Your task to perform on an android device: change notifications settings Image 0: 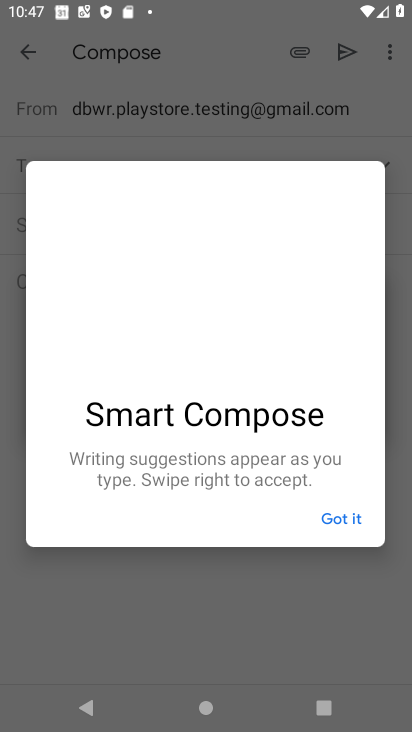
Step 0: press home button
Your task to perform on an android device: change notifications settings Image 1: 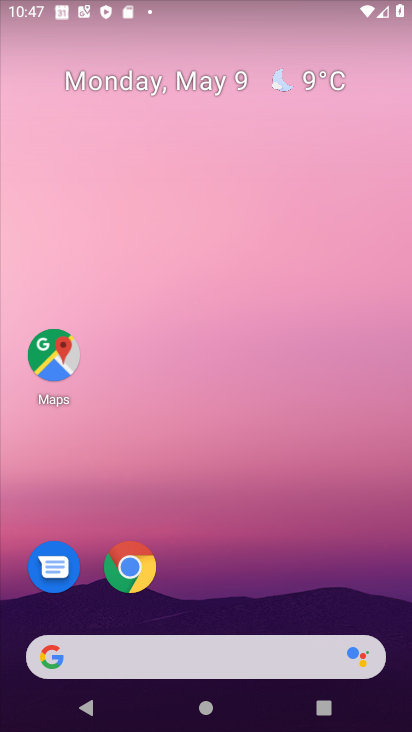
Step 1: drag from (202, 616) to (224, 79)
Your task to perform on an android device: change notifications settings Image 2: 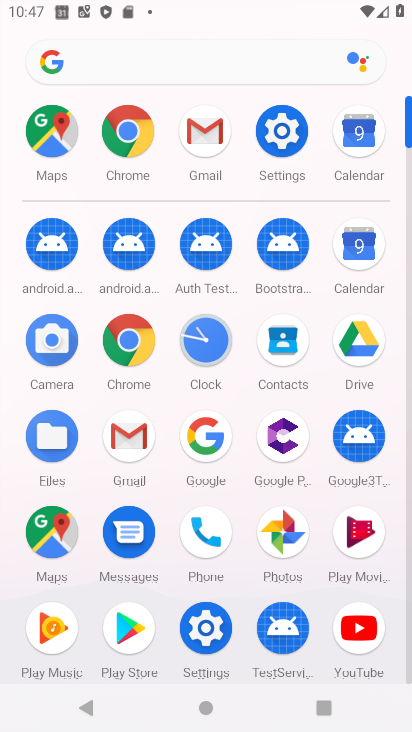
Step 2: click (282, 125)
Your task to perform on an android device: change notifications settings Image 3: 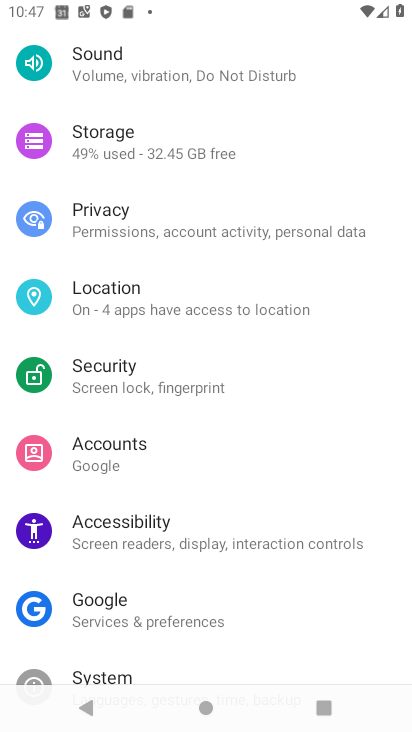
Step 3: drag from (151, 67) to (145, 611)
Your task to perform on an android device: change notifications settings Image 4: 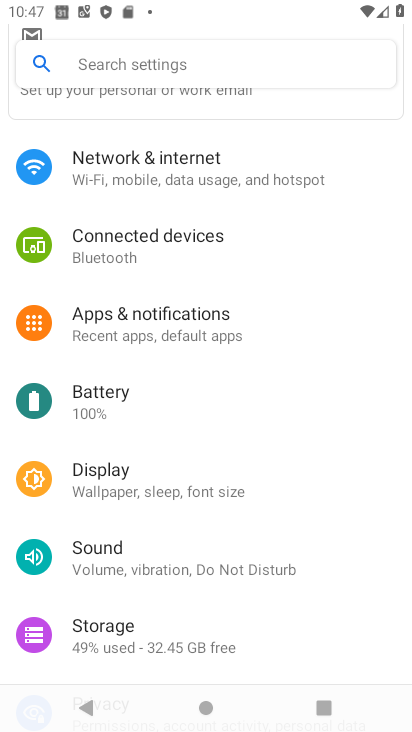
Step 4: click (177, 316)
Your task to perform on an android device: change notifications settings Image 5: 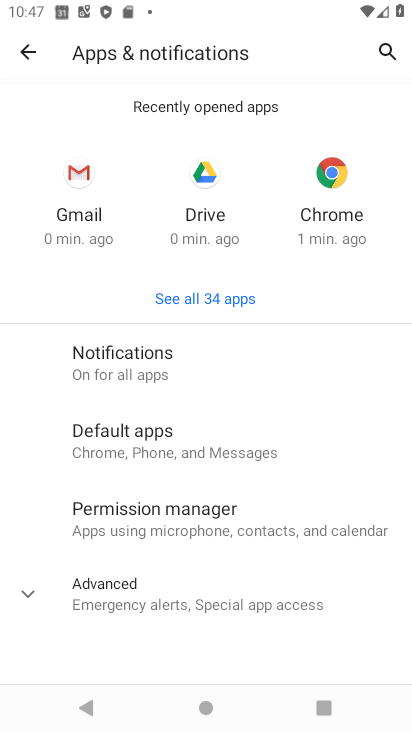
Step 5: click (179, 363)
Your task to perform on an android device: change notifications settings Image 6: 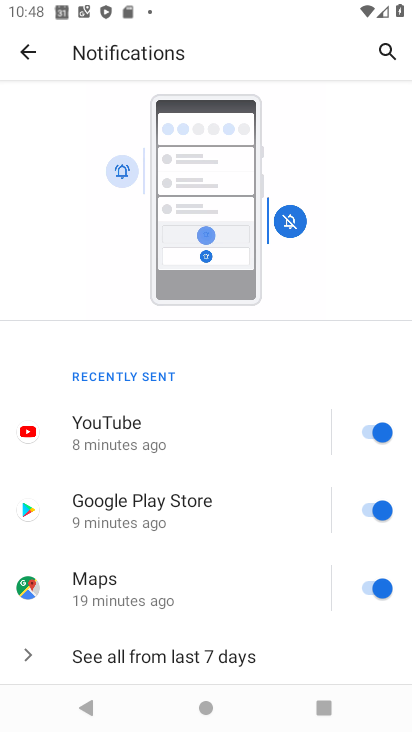
Step 6: drag from (263, 635) to (286, 308)
Your task to perform on an android device: change notifications settings Image 7: 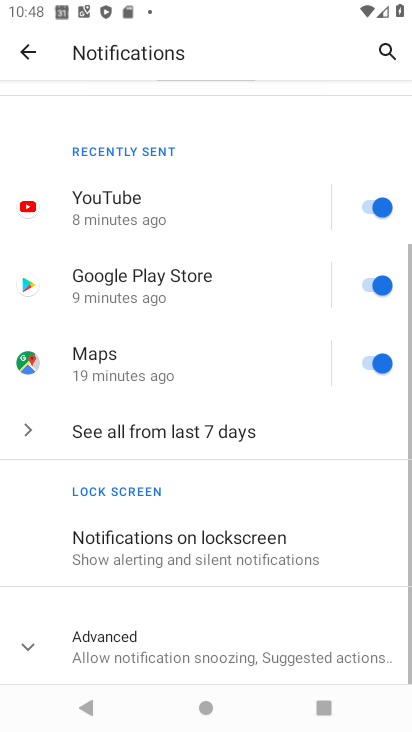
Step 7: click (309, 197)
Your task to perform on an android device: change notifications settings Image 8: 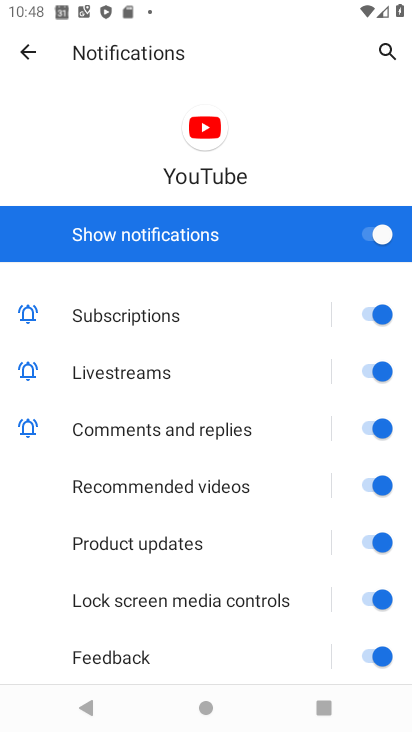
Step 8: click (35, 56)
Your task to perform on an android device: change notifications settings Image 9: 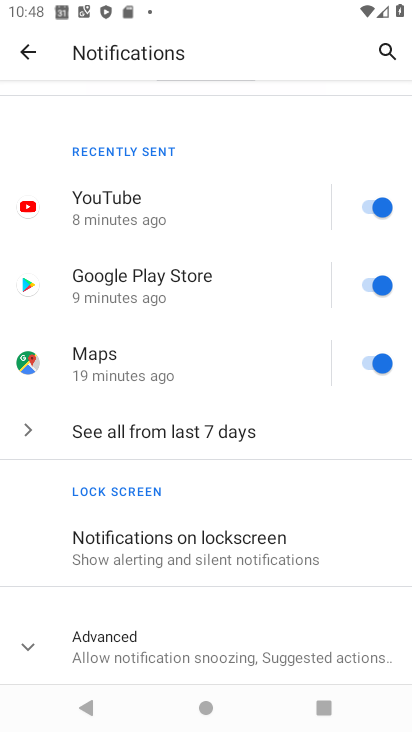
Step 9: click (28, 644)
Your task to perform on an android device: change notifications settings Image 10: 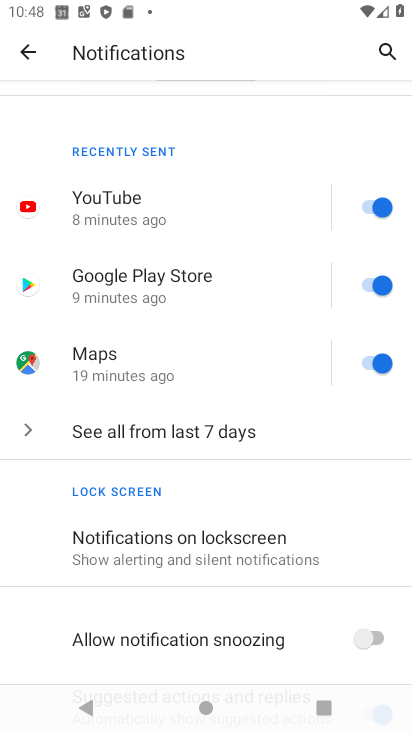
Step 10: drag from (201, 600) to (228, 267)
Your task to perform on an android device: change notifications settings Image 11: 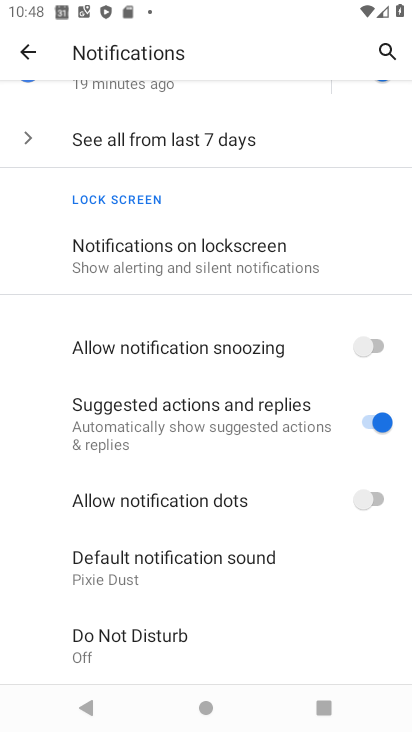
Step 11: drag from (253, 194) to (248, 495)
Your task to perform on an android device: change notifications settings Image 12: 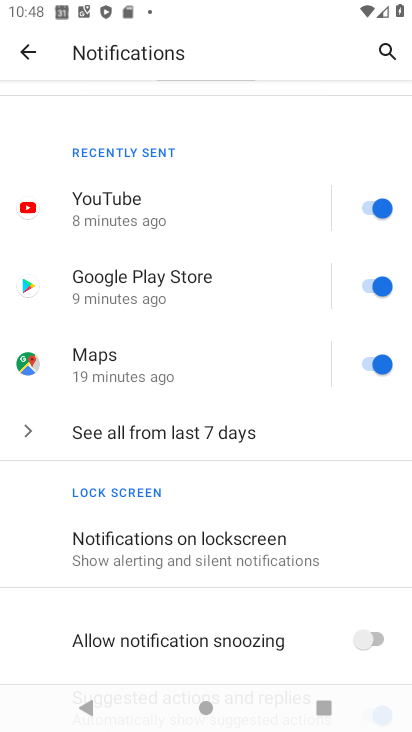
Step 12: click (369, 201)
Your task to perform on an android device: change notifications settings Image 13: 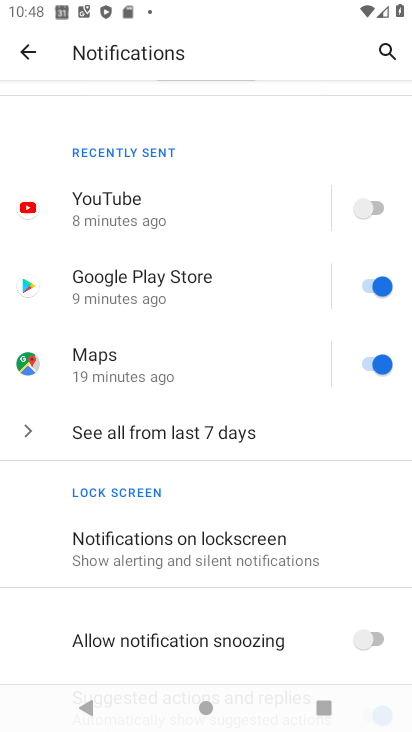
Step 13: click (374, 288)
Your task to perform on an android device: change notifications settings Image 14: 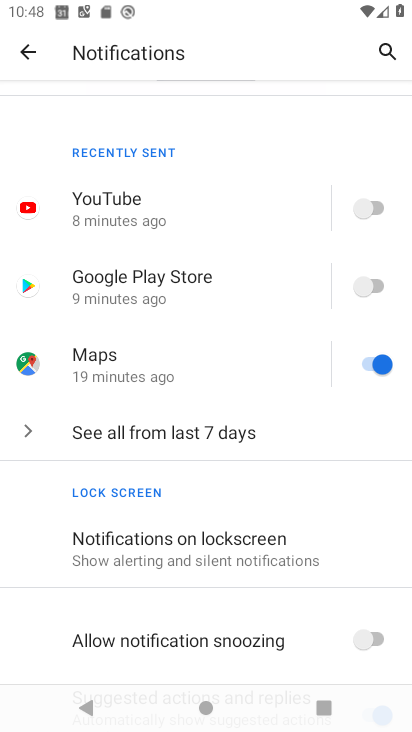
Step 14: click (377, 358)
Your task to perform on an android device: change notifications settings Image 15: 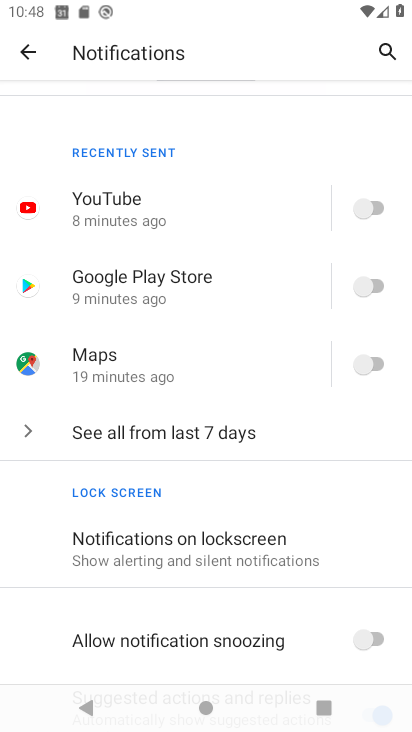
Step 15: task complete